Your task to perform on an android device: delete location history Image 0: 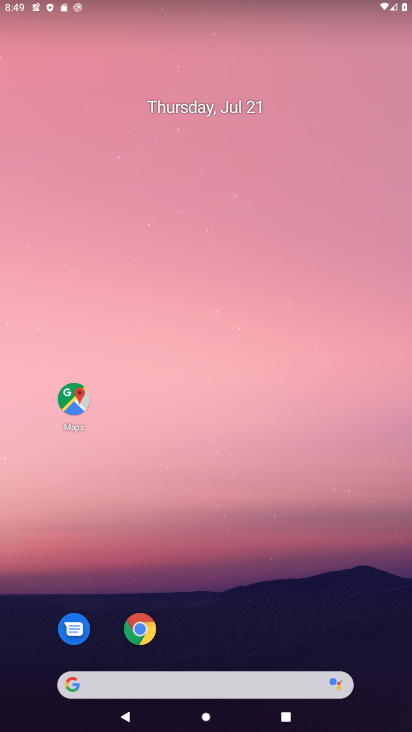
Step 0: click (82, 377)
Your task to perform on an android device: delete location history Image 1: 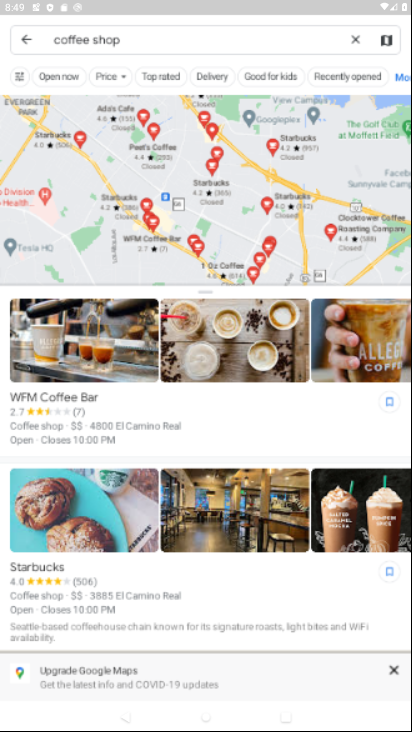
Step 1: click (30, 41)
Your task to perform on an android device: delete location history Image 2: 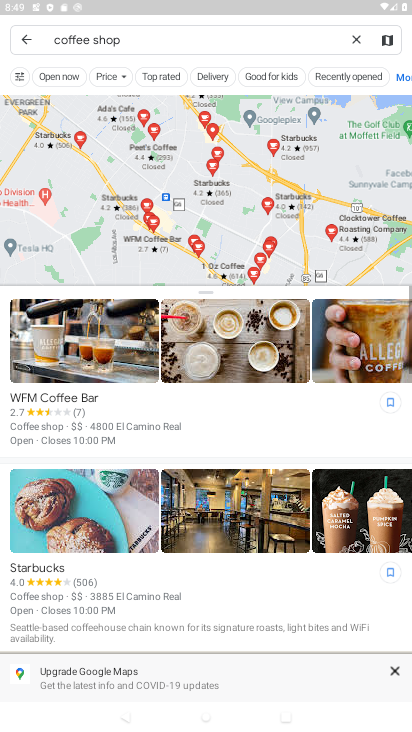
Step 2: click (30, 41)
Your task to perform on an android device: delete location history Image 3: 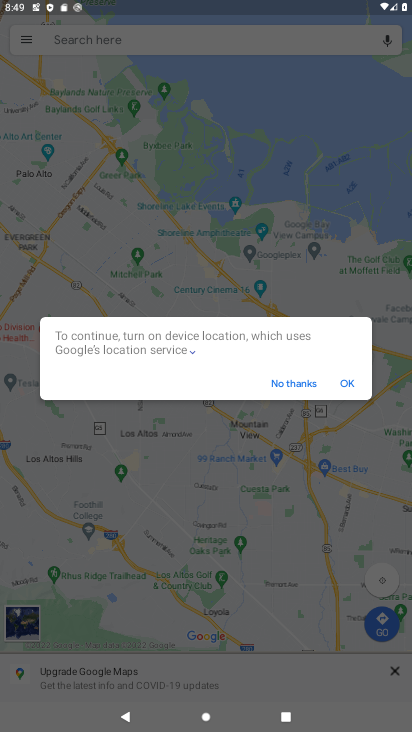
Step 3: click (352, 382)
Your task to perform on an android device: delete location history Image 4: 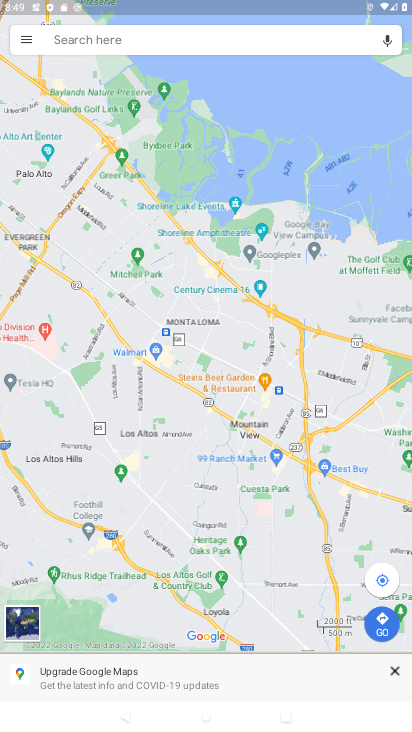
Step 4: click (35, 48)
Your task to perform on an android device: delete location history Image 5: 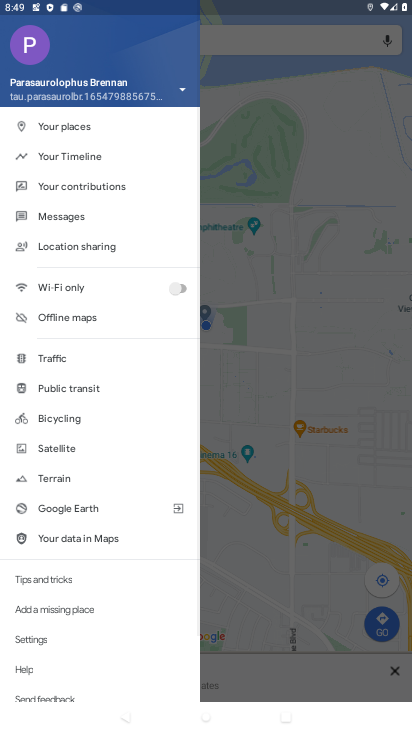
Step 5: click (55, 645)
Your task to perform on an android device: delete location history Image 6: 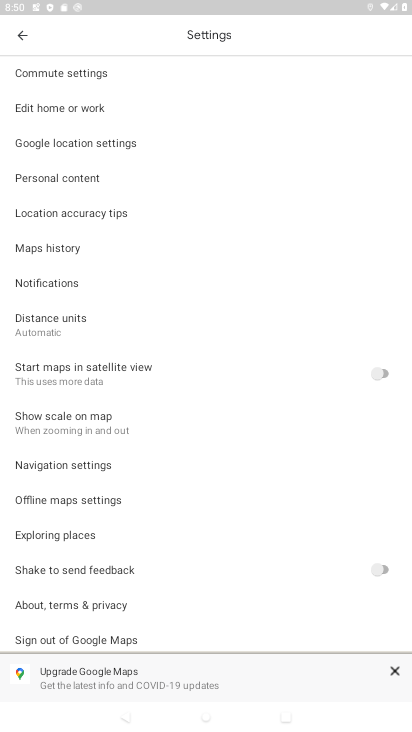
Step 6: click (22, 41)
Your task to perform on an android device: delete location history Image 7: 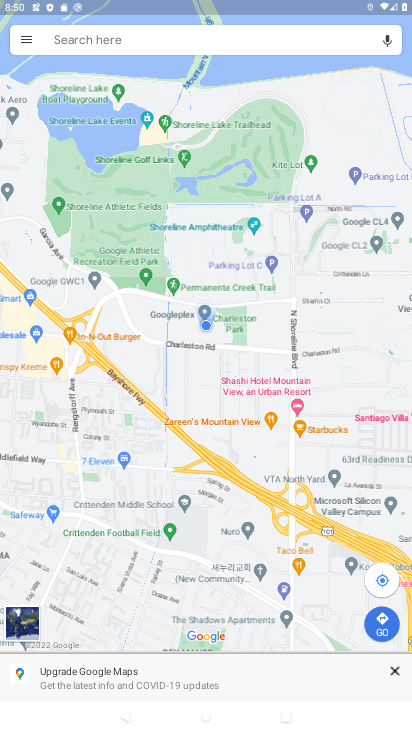
Step 7: click (22, 41)
Your task to perform on an android device: delete location history Image 8: 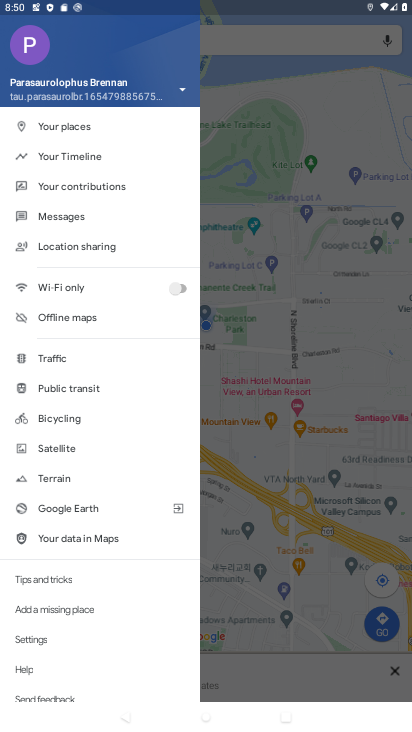
Step 8: click (77, 163)
Your task to perform on an android device: delete location history Image 9: 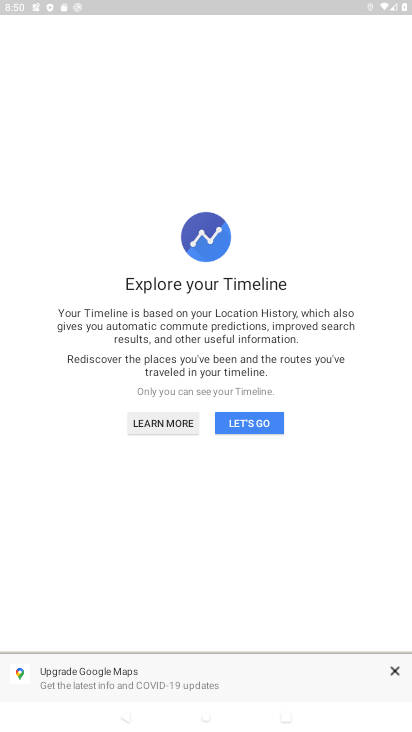
Step 9: click (258, 432)
Your task to perform on an android device: delete location history Image 10: 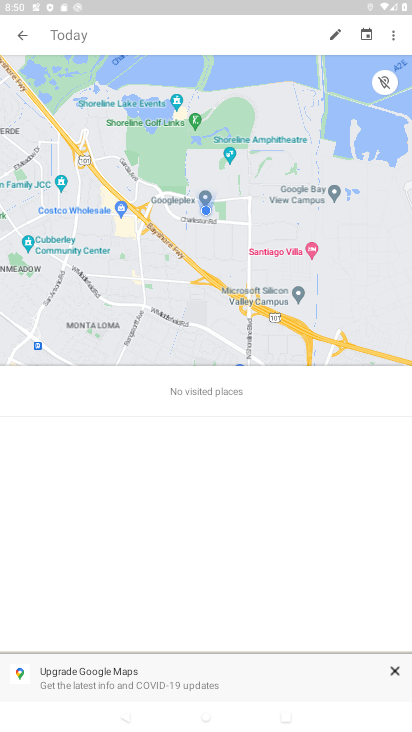
Step 10: click (398, 34)
Your task to perform on an android device: delete location history Image 11: 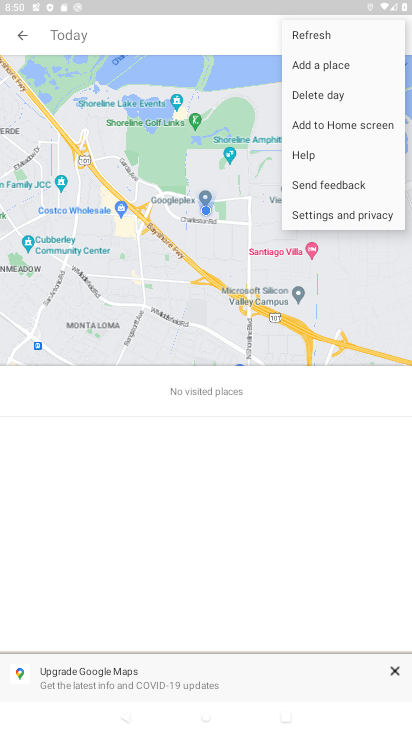
Step 11: click (315, 212)
Your task to perform on an android device: delete location history Image 12: 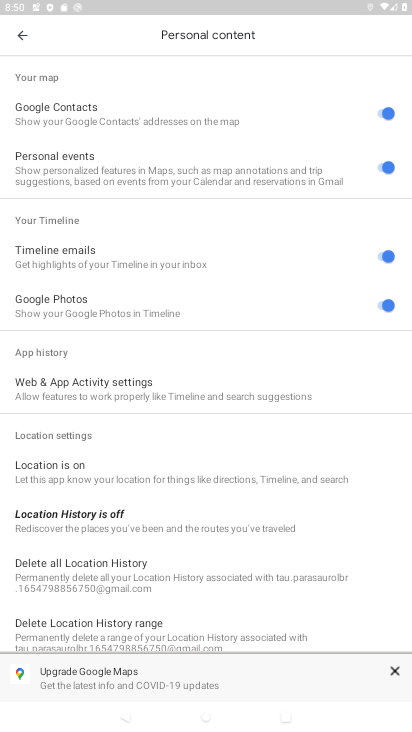
Step 12: click (152, 586)
Your task to perform on an android device: delete location history Image 13: 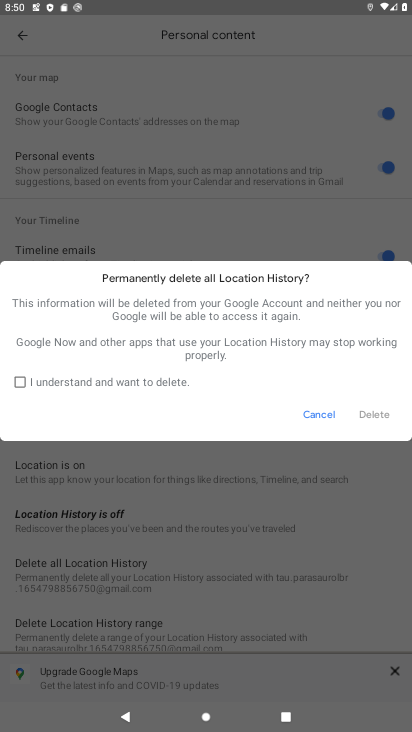
Step 13: click (15, 381)
Your task to perform on an android device: delete location history Image 14: 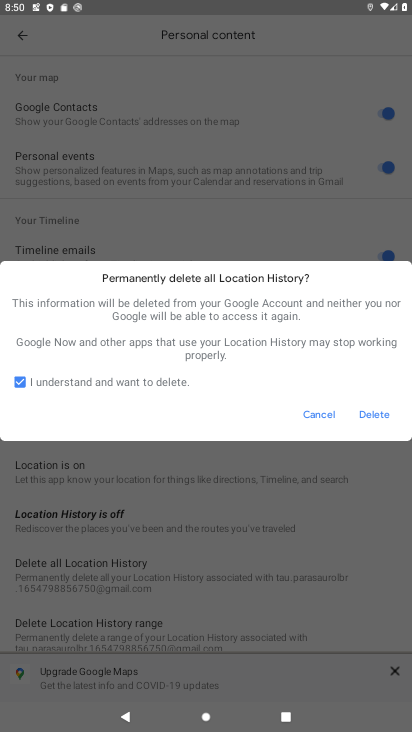
Step 14: click (382, 419)
Your task to perform on an android device: delete location history Image 15: 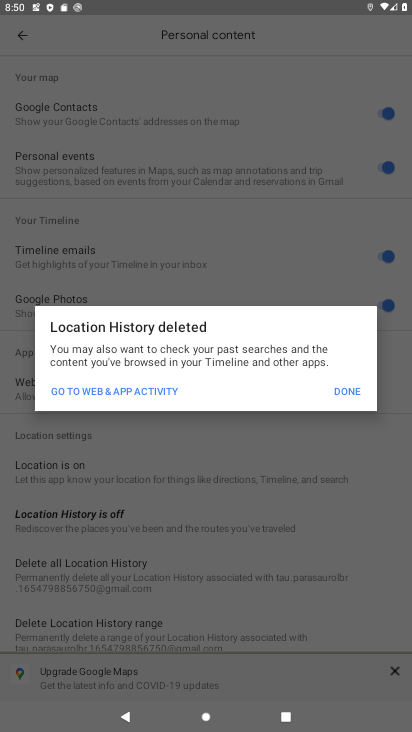
Step 15: click (352, 400)
Your task to perform on an android device: delete location history Image 16: 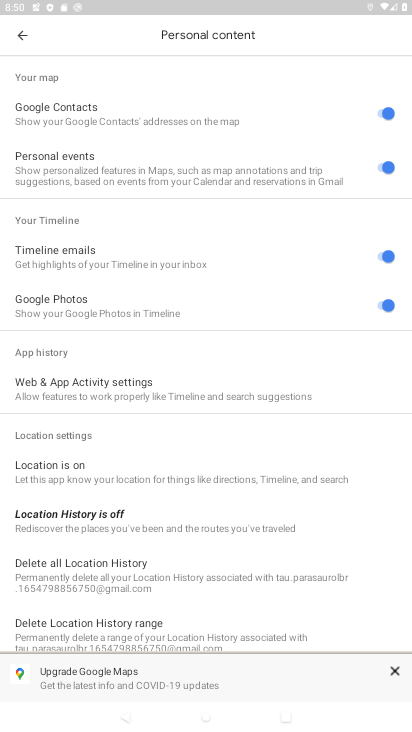
Step 16: task complete